Your task to perform on an android device: Open settings on Google Maps Image 0: 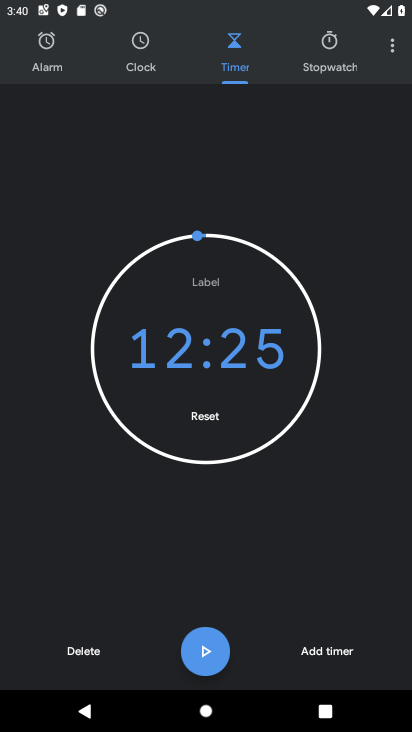
Step 0: press home button
Your task to perform on an android device: Open settings on Google Maps Image 1: 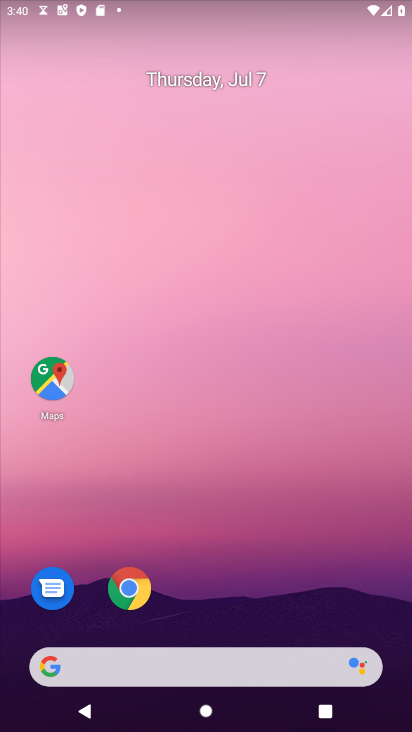
Step 1: drag from (242, 599) to (245, 76)
Your task to perform on an android device: Open settings on Google Maps Image 2: 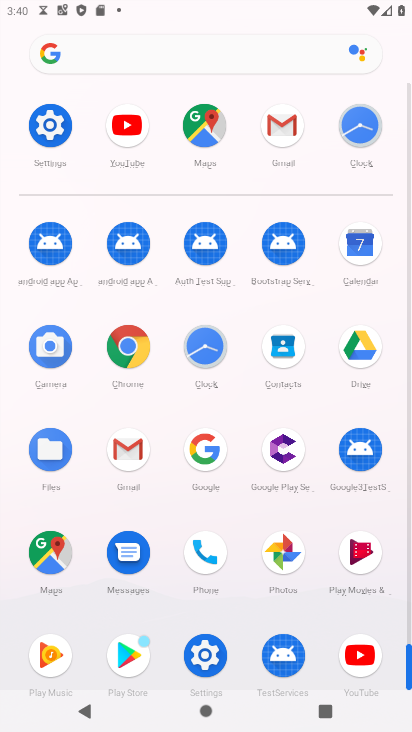
Step 2: click (52, 554)
Your task to perform on an android device: Open settings on Google Maps Image 3: 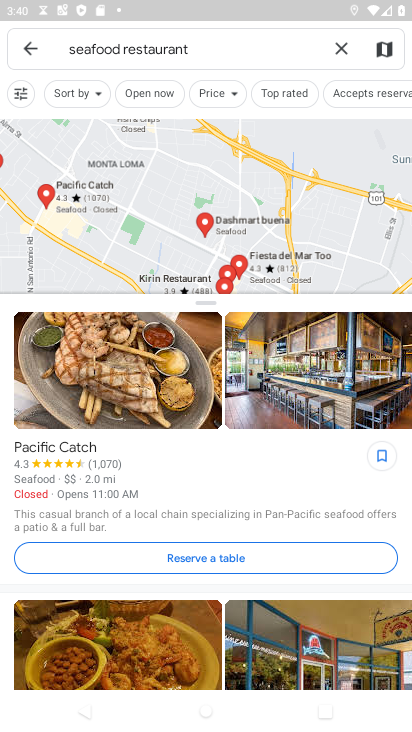
Step 3: click (350, 53)
Your task to perform on an android device: Open settings on Google Maps Image 4: 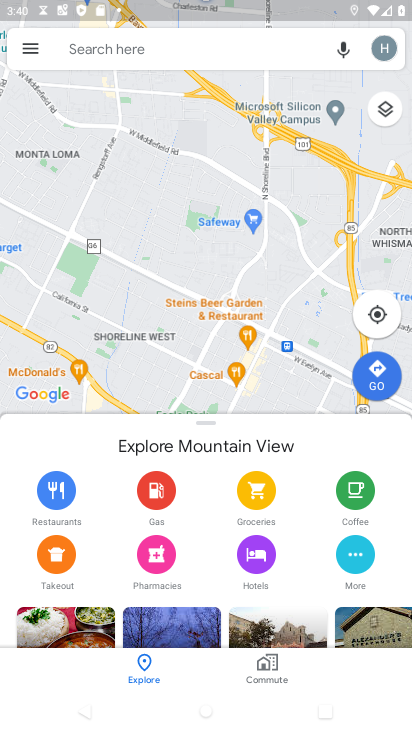
Step 4: click (30, 48)
Your task to perform on an android device: Open settings on Google Maps Image 5: 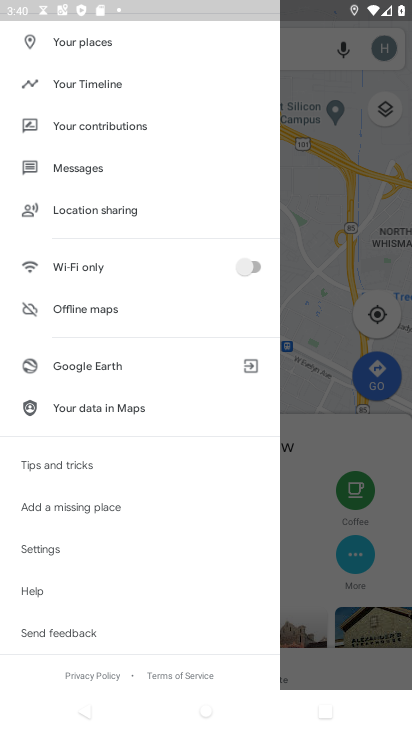
Step 5: click (36, 547)
Your task to perform on an android device: Open settings on Google Maps Image 6: 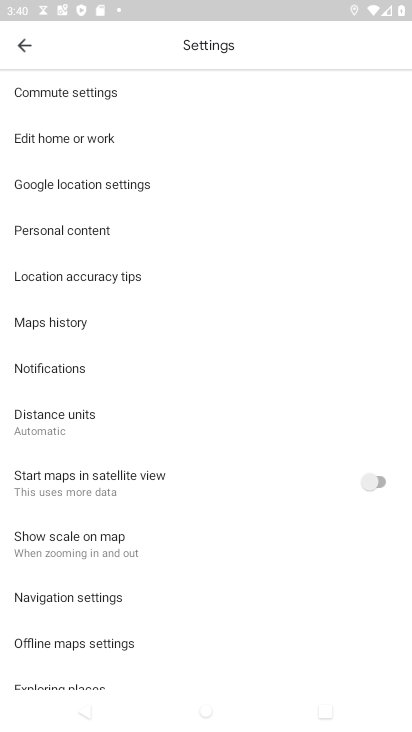
Step 6: task complete